Your task to perform on an android device: stop showing notifications on the lock screen Image 0: 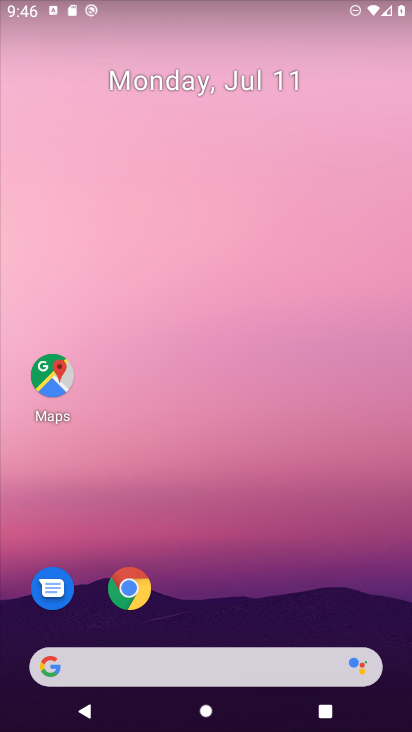
Step 0: drag from (389, 651) to (209, 39)
Your task to perform on an android device: stop showing notifications on the lock screen Image 1: 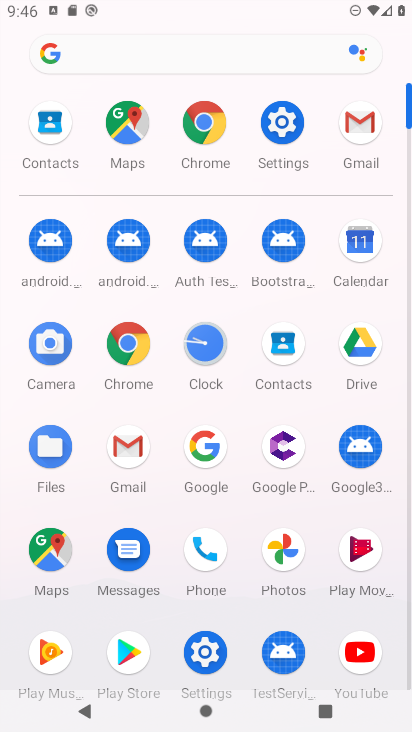
Step 1: click (290, 130)
Your task to perform on an android device: stop showing notifications on the lock screen Image 2: 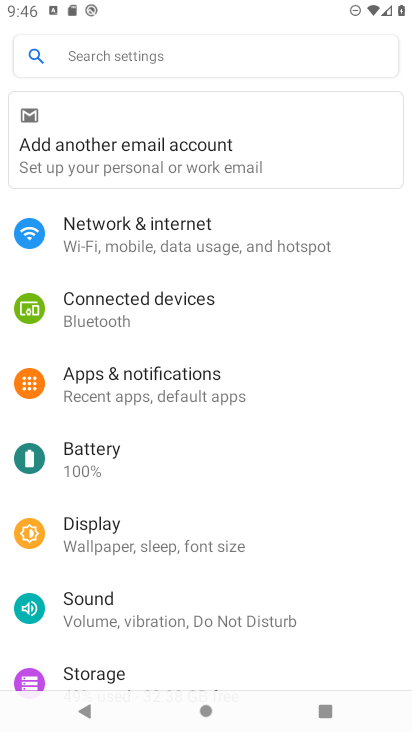
Step 2: click (143, 384)
Your task to perform on an android device: stop showing notifications on the lock screen Image 3: 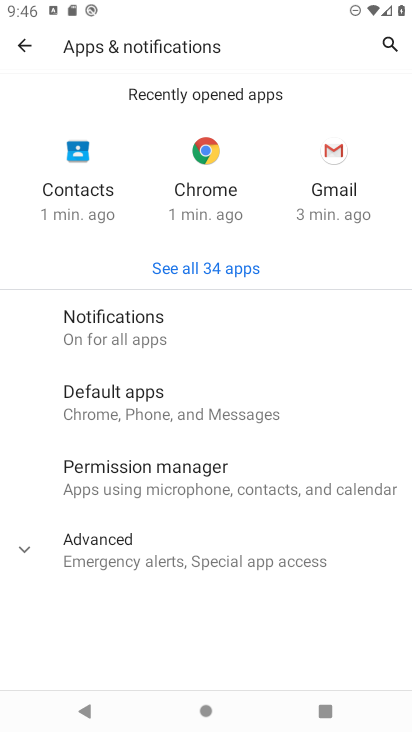
Step 3: click (144, 330)
Your task to perform on an android device: stop showing notifications on the lock screen Image 4: 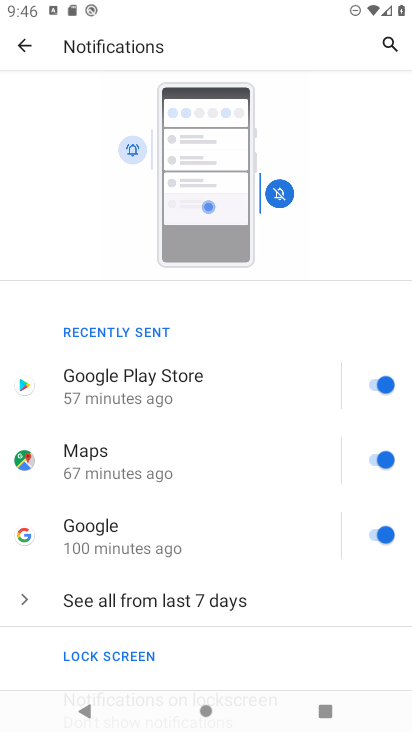
Step 4: drag from (108, 656) to (131, 170)
Your task to perform on an android device: stop showing notifications on the lock screen Image 5: 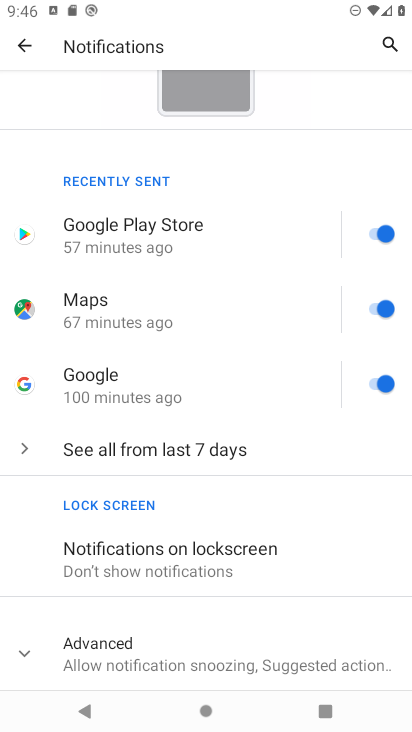
Step 5: click (50, 644)
Your task to perform on an android device: stop showing notifications on the lock screen Image 6: 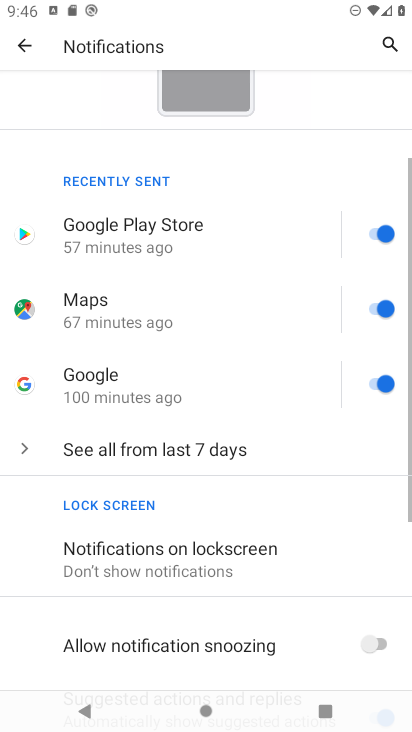
Step 6: click (176, 544)
Your task to perform on an android device: stop showing notifications on the lock screen Image 7: 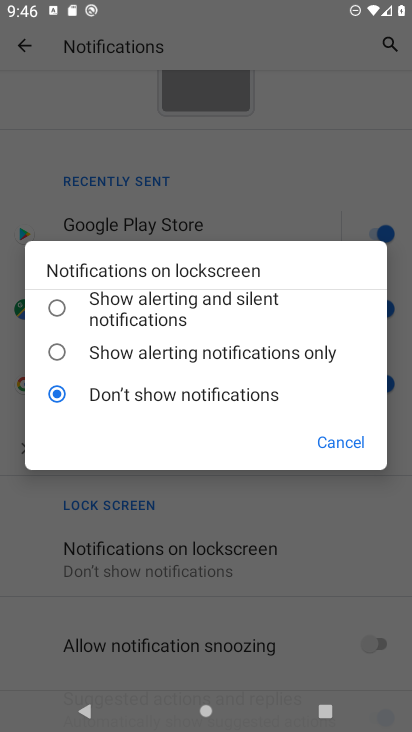
Step 7: task complete